Your task to perform on an android device: Go to Wikipedia Image 0: 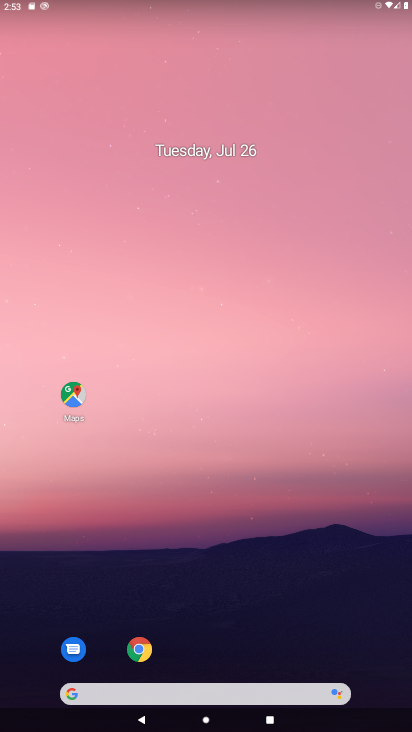
Step 0: drag from (195, 672) to (260, 235)
Your task to perform on an android device: Go to Wikipedia Image 1: 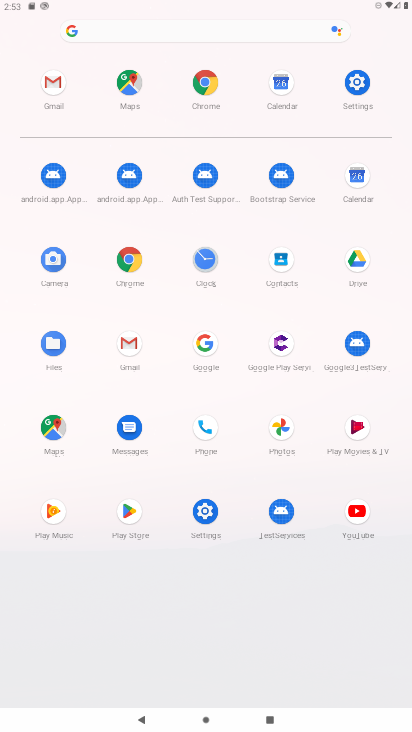
Step 1: click (130, 269)
Your task to perform on an android device: Go to Wikipedia Image 2: 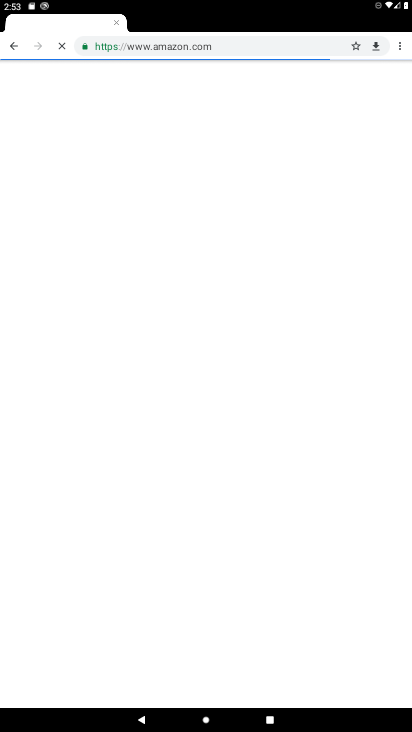
Step 2: click (202, 48)
Your task to perform on an android device: Go to Wikipedia Image 3: 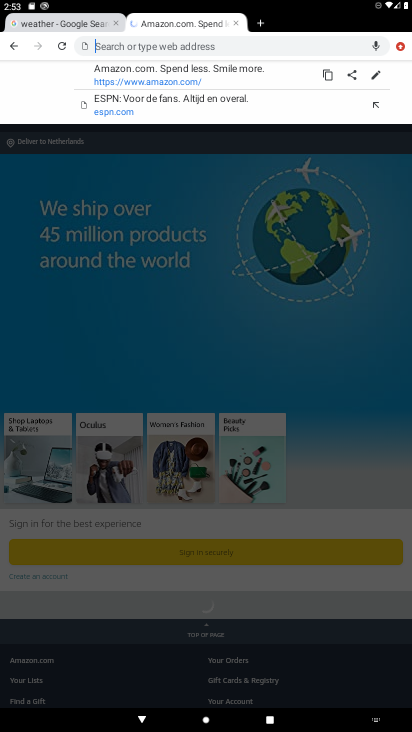
Step 3: type "wikipedia"
Your task to perform on an android device: Go to Wikipedia Image 4: 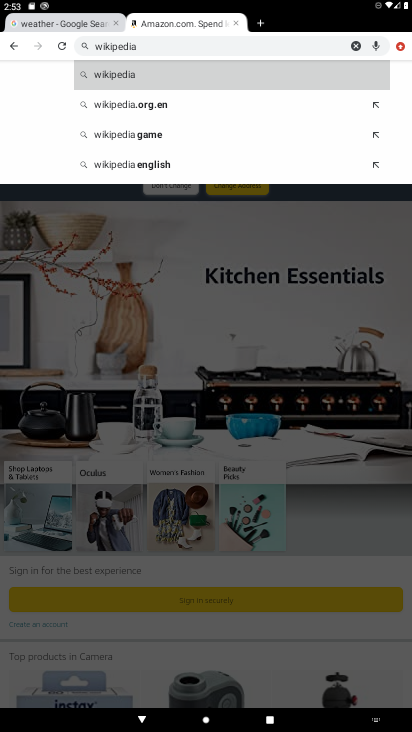
Step 4: click (152, 70)
Your task to perform on an android device: Go to Wikipedia Image 5: 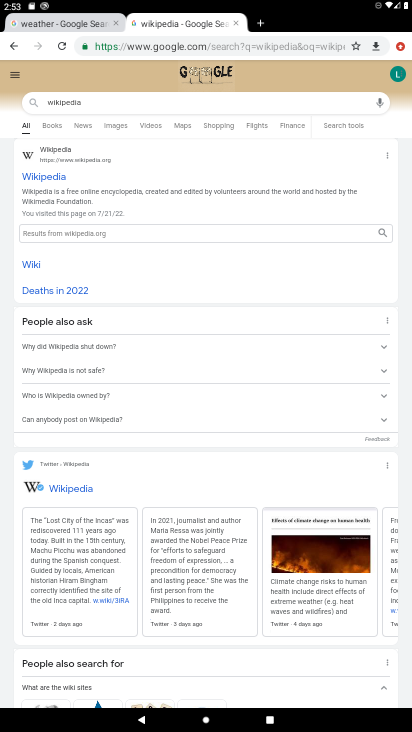
Step 5: click (32, 169)
Your task to perform on an android device: Go to Wikipedia Image 6: 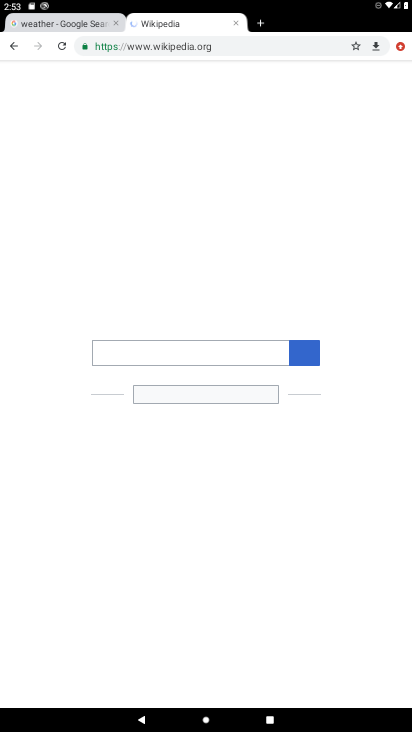
Step 6: task complete